Your task to perform on an android device: toggle notification dots Image 0: 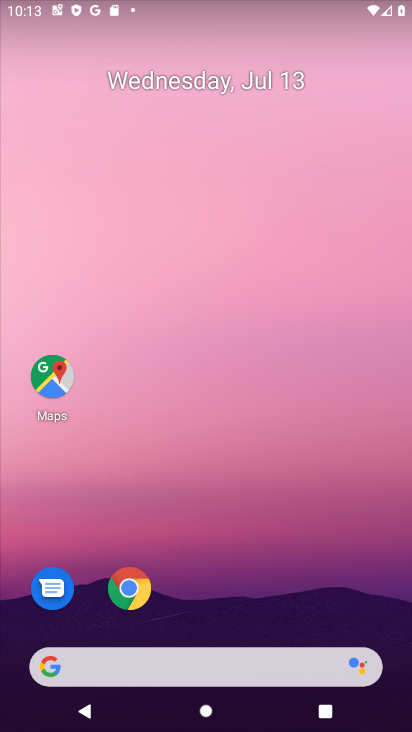
Step 0: drag from (214, 620) to (243, 149)
Your task to perform on an android device: toggle notification dots Image 1: 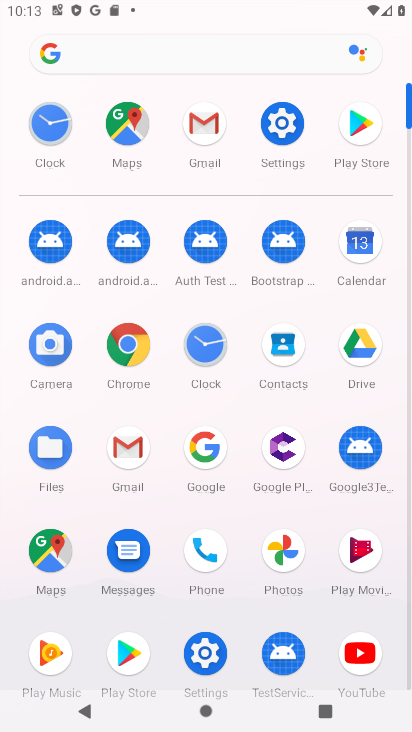
Step 1: click (284, 126)
Your task to perform on an android device: toggle notification dots Image 2: 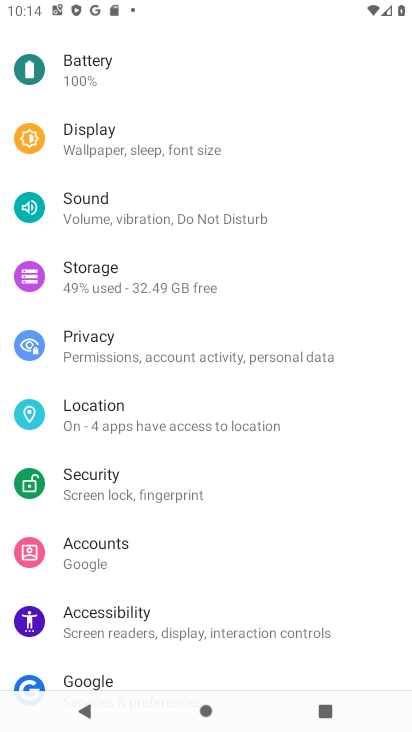
Step 2: drag from (109, 134) to (135, 433)
Your task to perform on an android device: toggle notification dots Image 3: 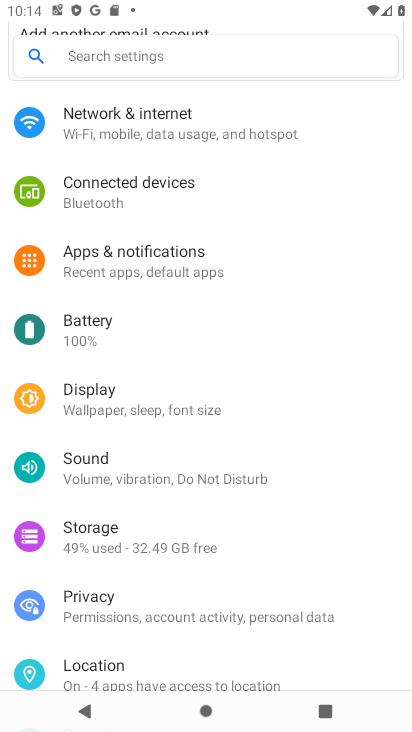
Step 3: click (117, 258)
Your task to perform on an android device: toggle notification dots Image 4: 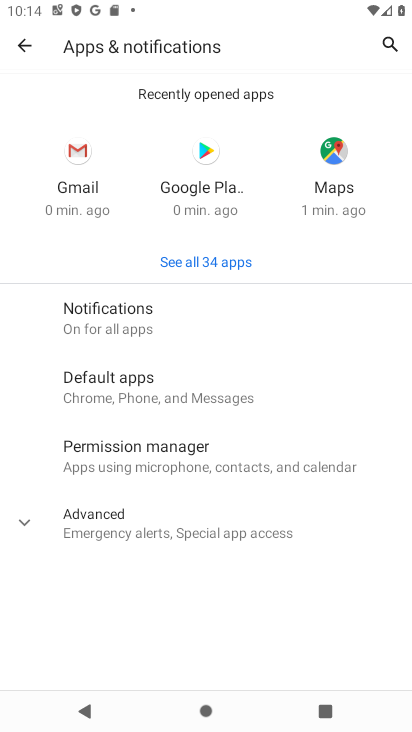
Step 4: click (141, 321)
Your task to perform on an android device: toggle notification dots Image 5: 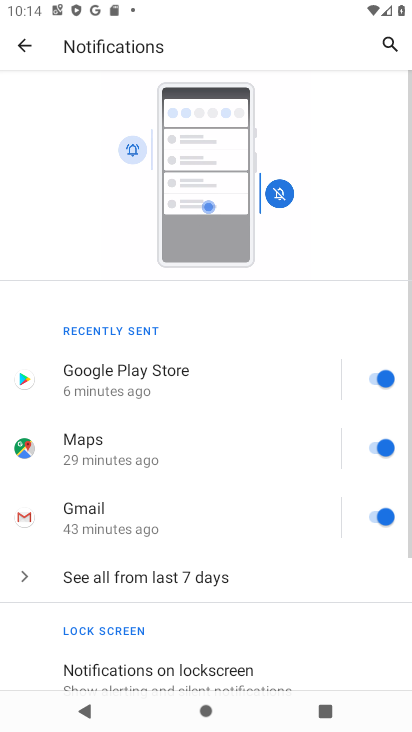
Step 5: drag from (220, 582) to (244, 209)
Your task to perform on an android device: toggle notification dots Image 6: 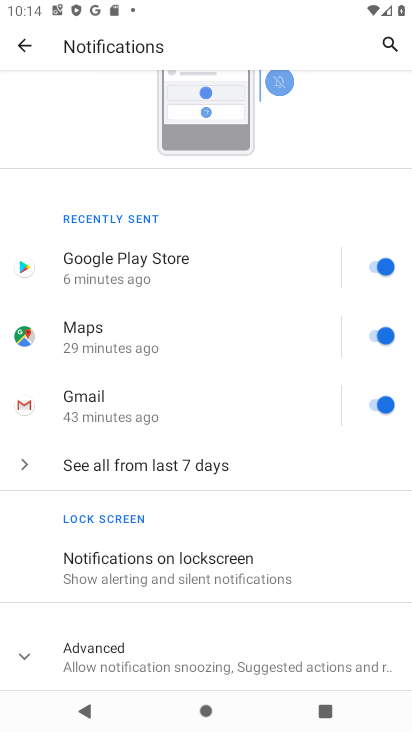
Step 6: click (99, 663)
Your task to perform on an android device: toggle notification dots Image 7: 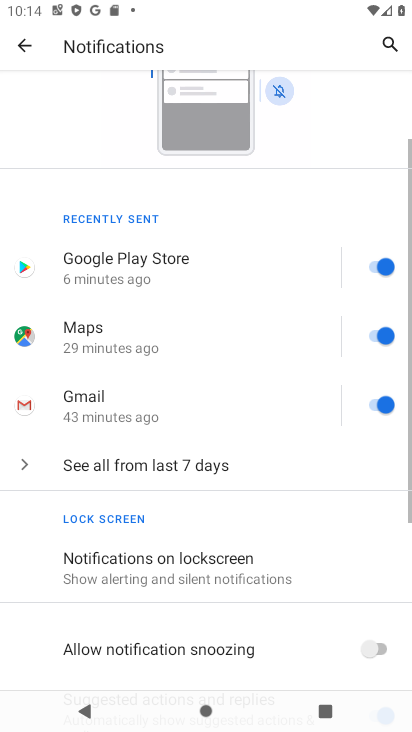
Step 7: drag from (245, 619) to (273, 260)
Your task to perform on an android device: toggle notification dots Image 8: 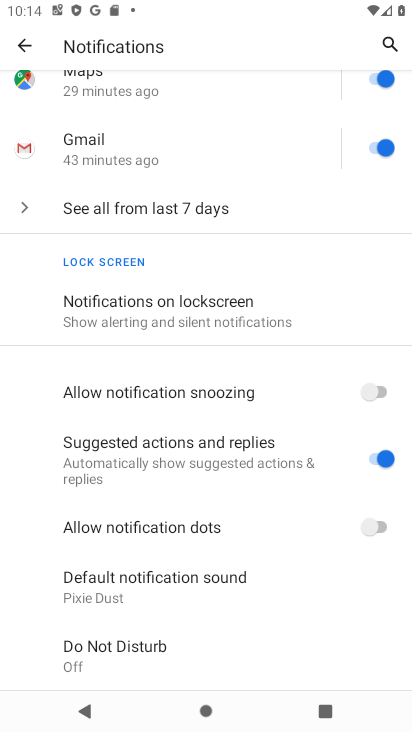
Step 8: click (383, 522)
Your task to perform on an android device: toggle notification dots Image 9: 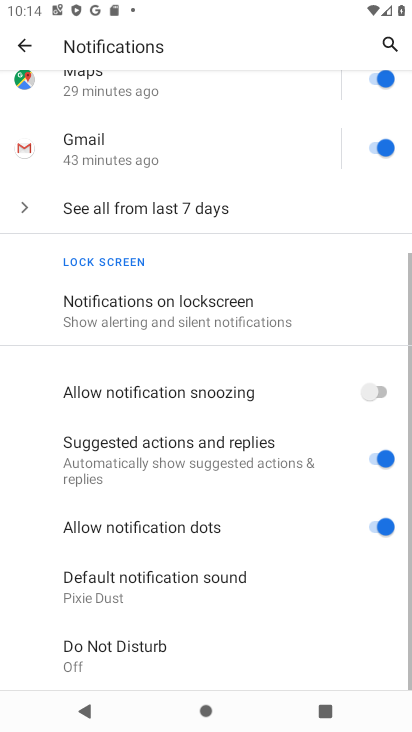
Step 9: task complete